Your task to perform on an android device: find snoozed emails in the gmail app Image 0: 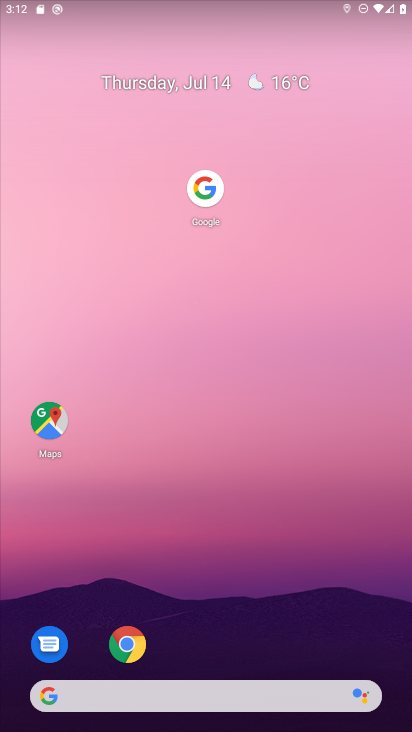
Step 0: drag from (187, 643) to (187, 261)
Your task to perform on an android device: find snoozed emails in the gmail app Image 1: 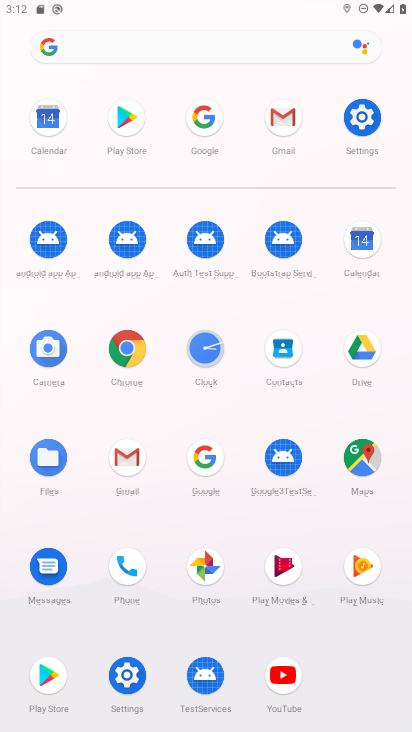
Step 1: click (299, 135)
Your task to perform on an android device: find snoozed emails in the gmail app Image 2: 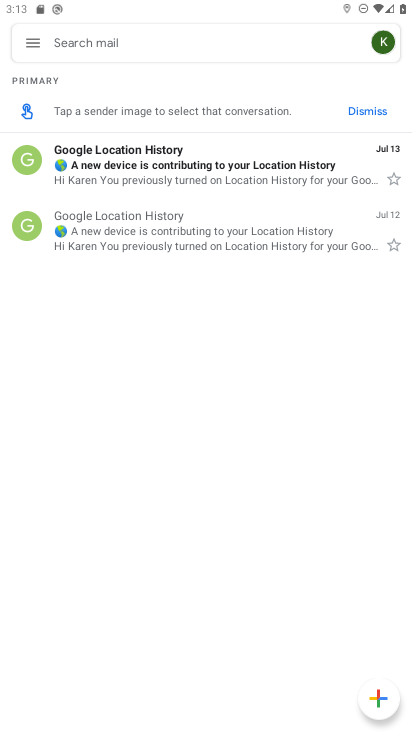
Step 2: click (36, 49)
Your task to perform on an android device: find snoozed emails in the gmail app Image 3: 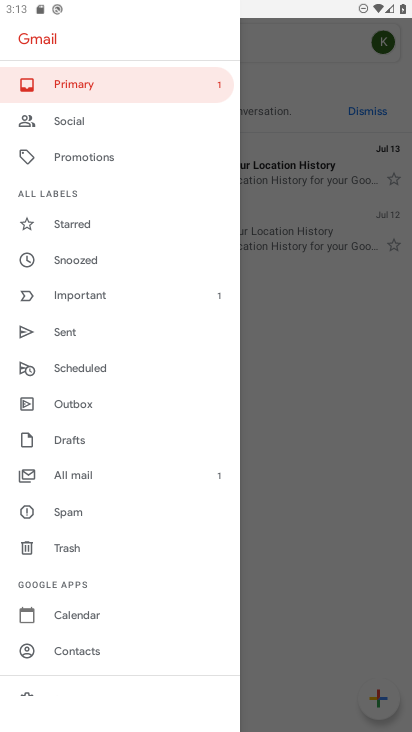
Step 3: click (112, 261)
Your task to perform on an android device: find snoozed emails in the gmail app Image 4: 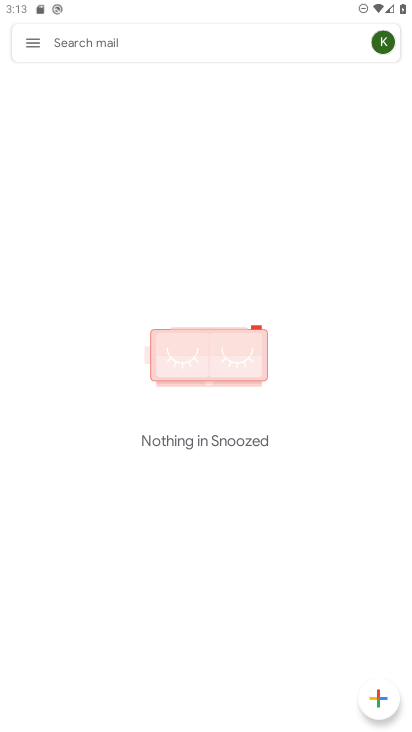
Step 4: task complete